Your task to perform on an android device: allow cookies in the chrome app Image 0: 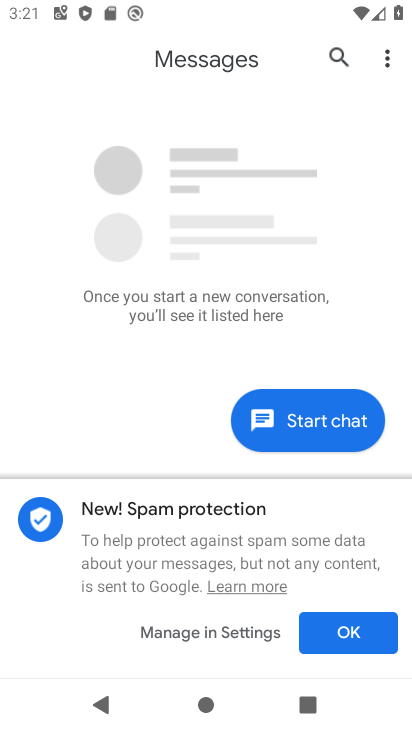
Step 0: press home button
Your task to perform on an android device: allow cookies in the chrome app Image 1: 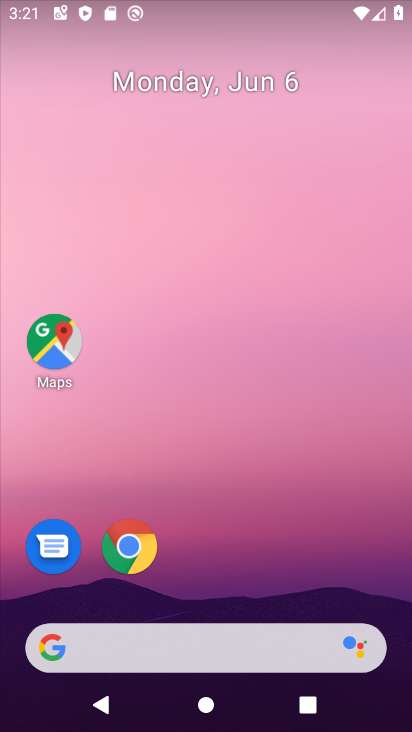
Step 1: drag from (287, 603) to (262, 195)
Your task to perform on an android device: allow cookies in the chrome app Image 2: 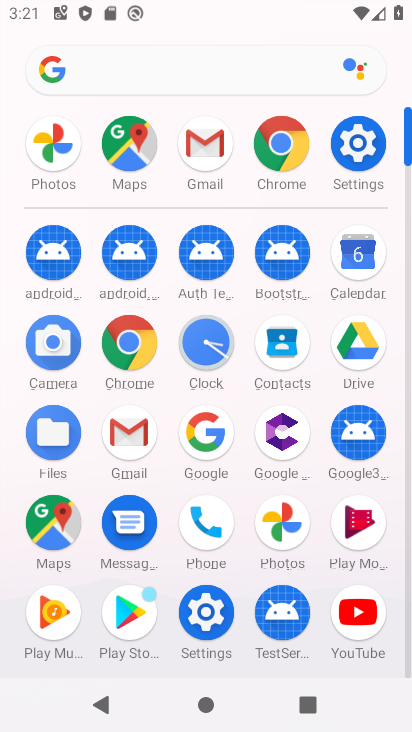
Step 2: click (344, 133)
Your task to perform on an android device: allow cookies in the chrome app Image 3: 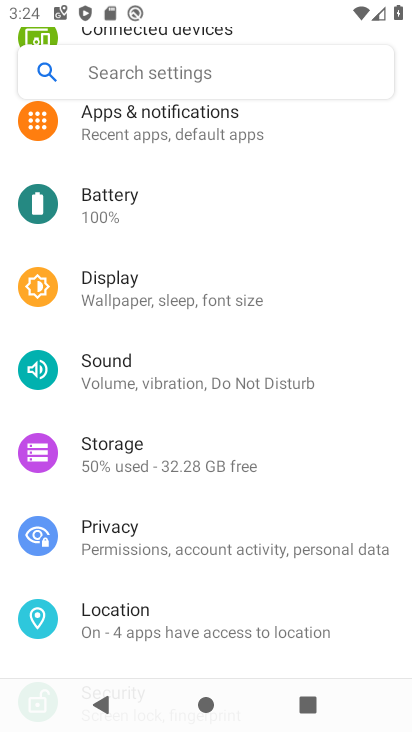
Step 3: press home button
Your task to perform on an android device: allow cookies in the chrome app Image 4: 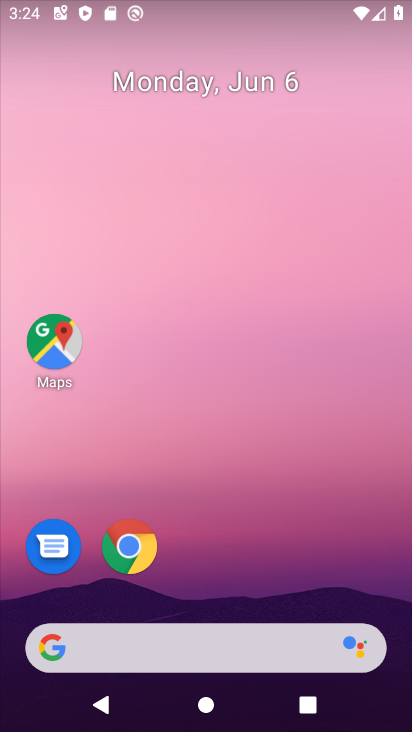
Step 4: click (125, 554)
Your task to perform on an android device: allow cookies in the chrome app Image 5: 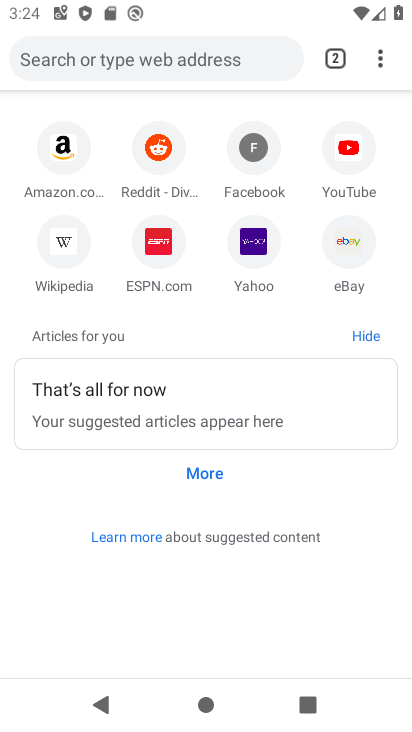
Step 5: click (378, 55)
Your task to perform on an android device: allow cookies in the chrome app Image 6: 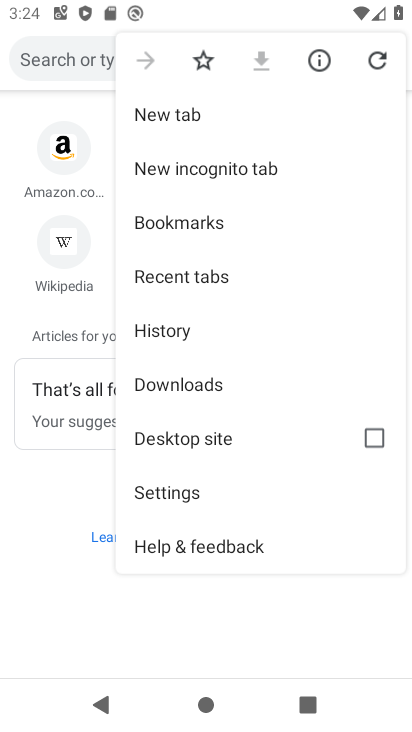
Step 6: click (203, 502)
Your task to perform on an android device: allow cookies in the chrome app Image 7: 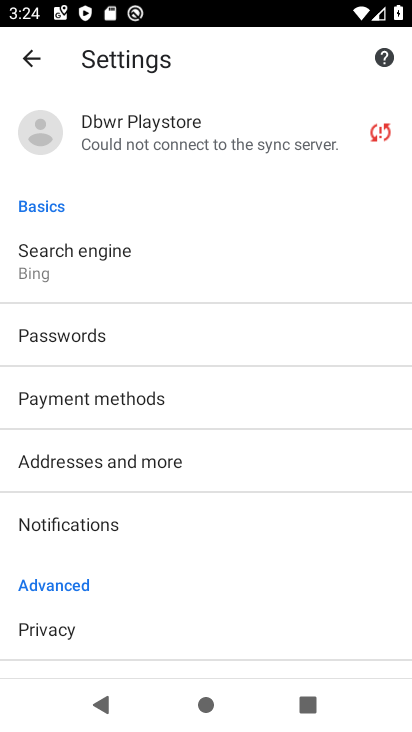
Step 7: task complete